Your task to perform on an android device: What's on my calendar tomorrow? Image 0: 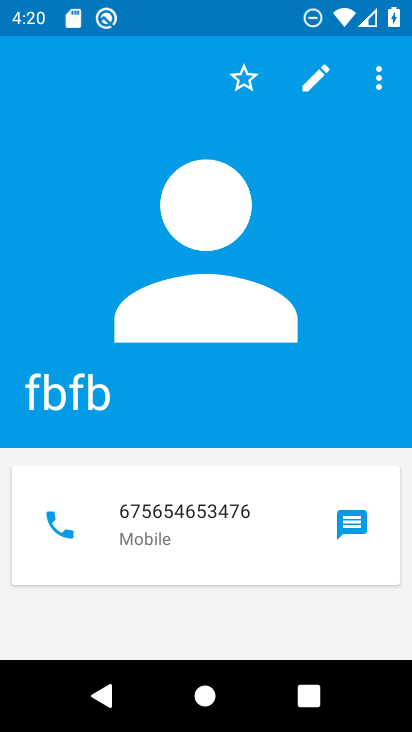
Step 0: press back button
Your task to perform on an android device: What's on my calendar tomorrow? Image 1: 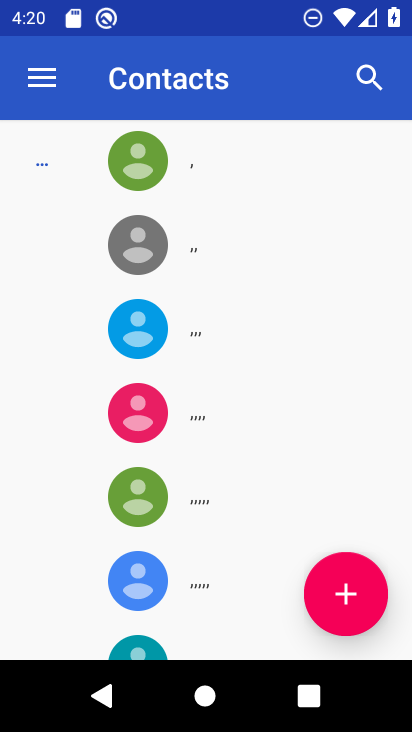
Step 1: press back button
Your task to perform on an android device: What's on my calendar tomorrow? Image 2: 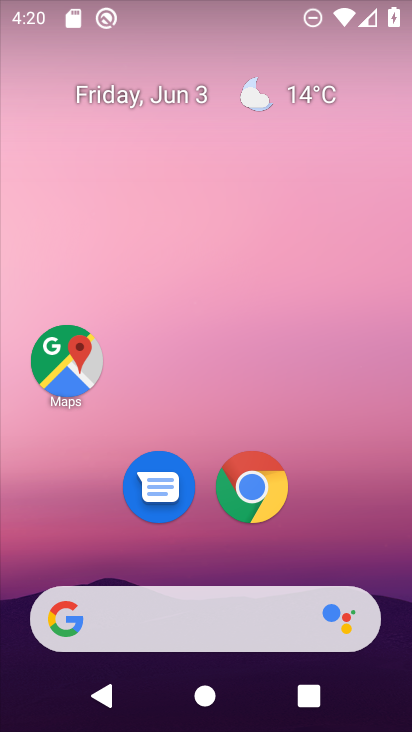
Step 2: drag from (191, 555) to (224, 75)
Your task to perform on an android device: What's on my calendar tomorrow? Image 3: 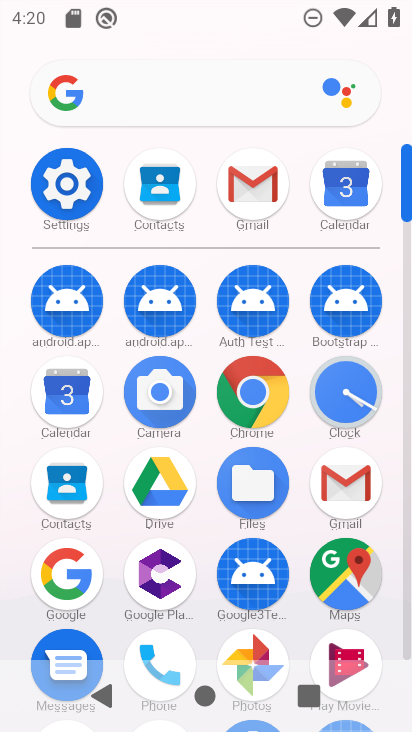
Step 3: click (62, 404)
Your task to perform on an android device: What's on my calendar tomorrow? Image 4: 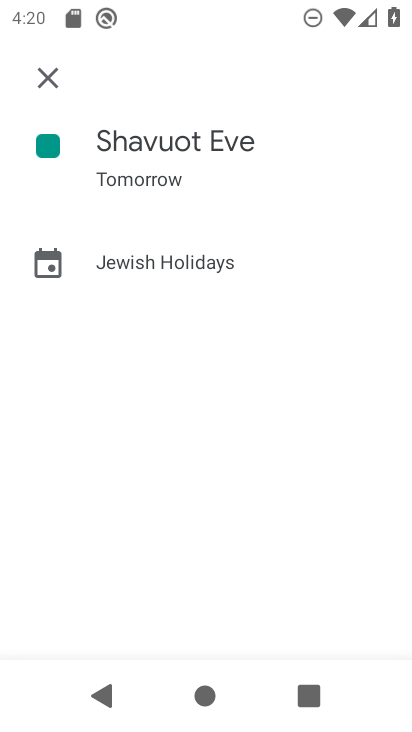
Step 4: click (34, 72)
Your task to perform on an android device: What's on my calendar tomorrow? Image 5: 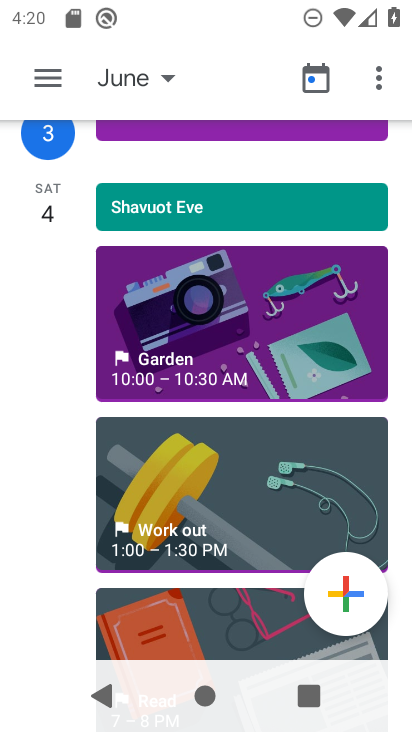
Step 5: drag from (213, 580) to (294, 124)
Your task to perform on an android device: What's on my calendar tomorrow? Image 6: 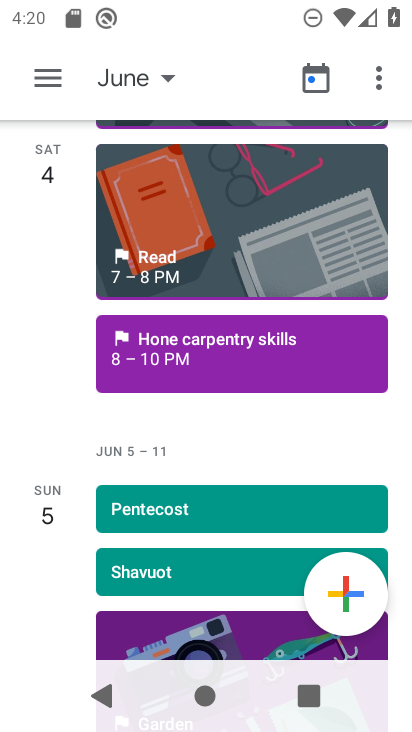
Step 6: click (193, 361)
Your task to perform on an android device: What's on my calendar tomorrow? Image 7: 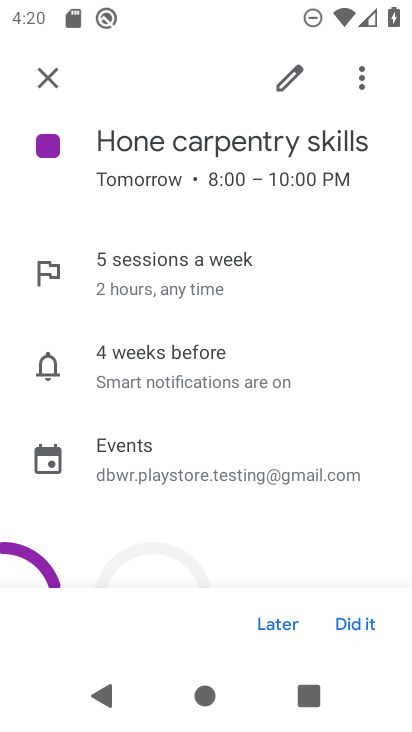
Step 7: task complete